Your task to perform on an android device: open a new tab in the chrome app Image 0: 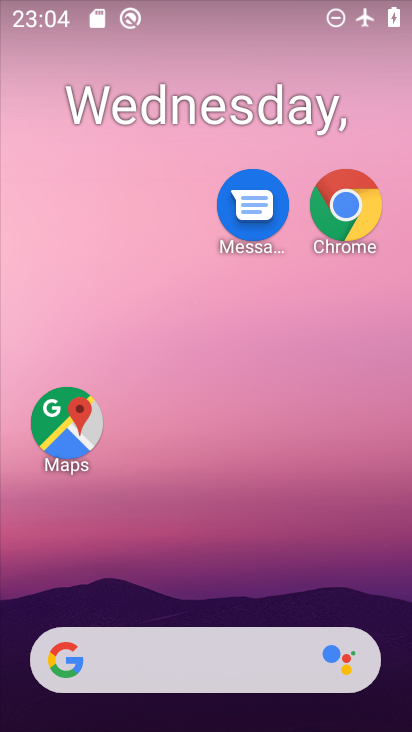
Step 0: drag from (190, 590) to (187, 14)
Your task to perform on an android device: open a new tab in the chrome app Image 1: 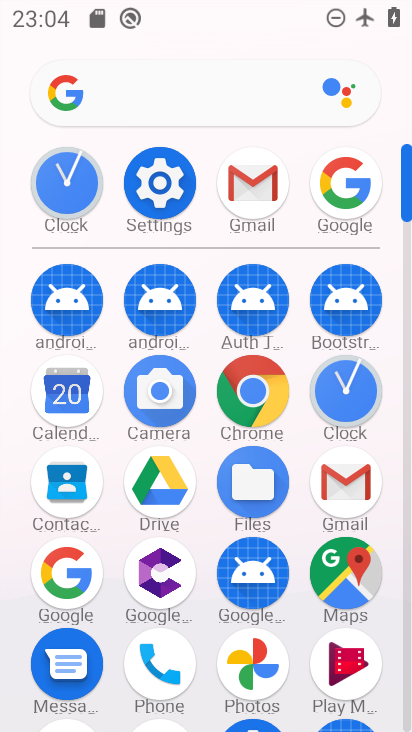
Step 1: click (240, 432)
Your task to perform on an android device: open a new tab in the chrome app Image 2: 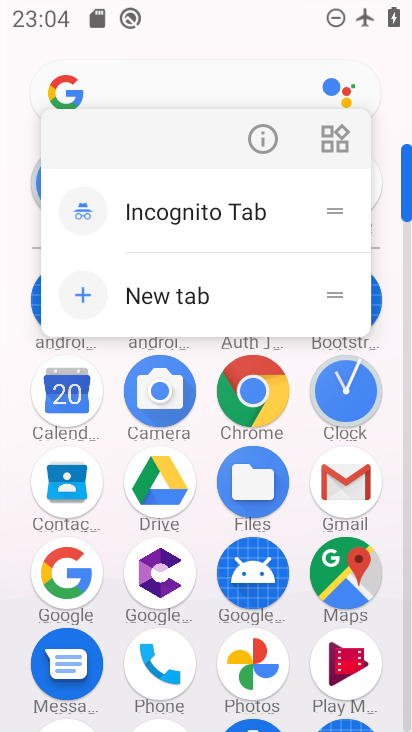
Step 2: click (256, 122)
Your task to perform on an android device: open a new tab in the chrome app Image 3: 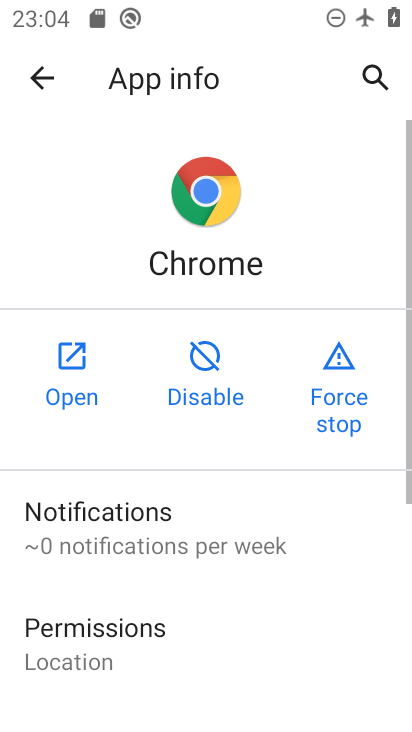
Step 3: click (72, 321)
Your task to perform on an android device: open a new tab in the chrome app Image 4: 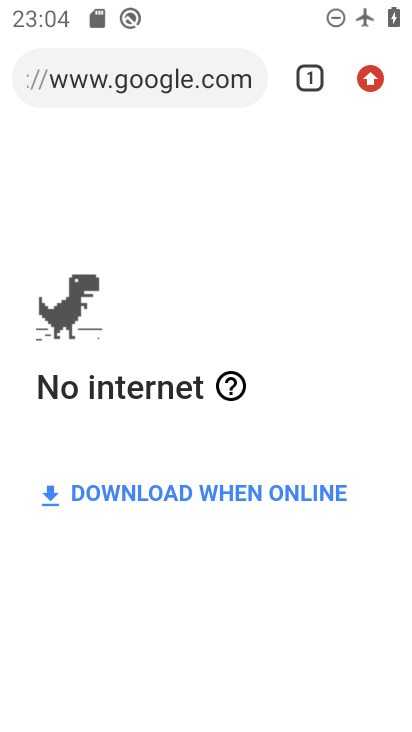
Step 4: click (309, 71)
Your task to perform on an android device: open a new tab in the chrome app Image 5: 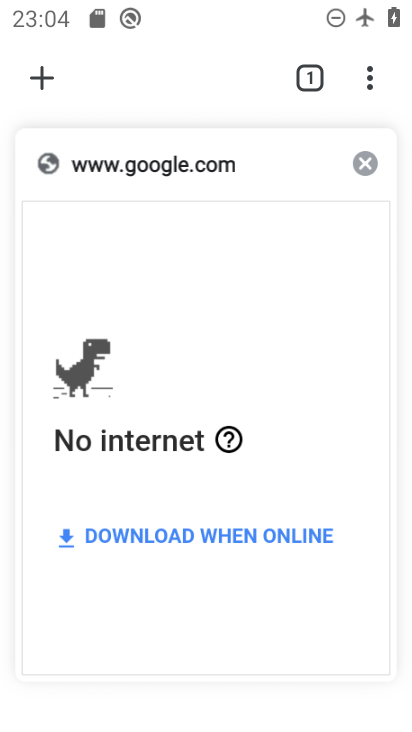
Step 5: click (36, 71)
Your task to perform on an android device: open a new tab in the chrome app Image 6: 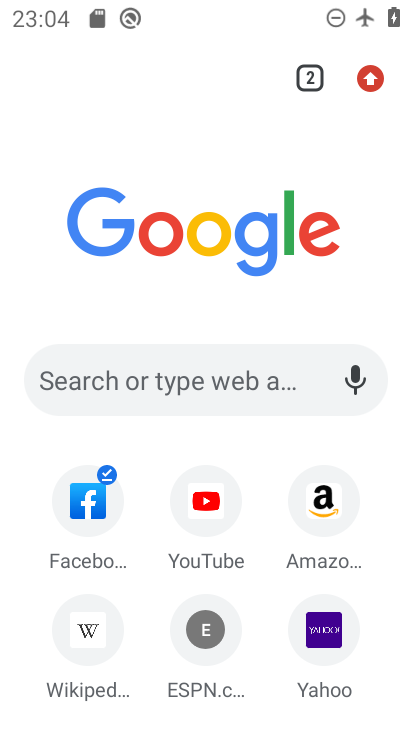
Step 6: task complete